Your task to perform on an android device: delete the emails in spam in the gmail app Image 0: 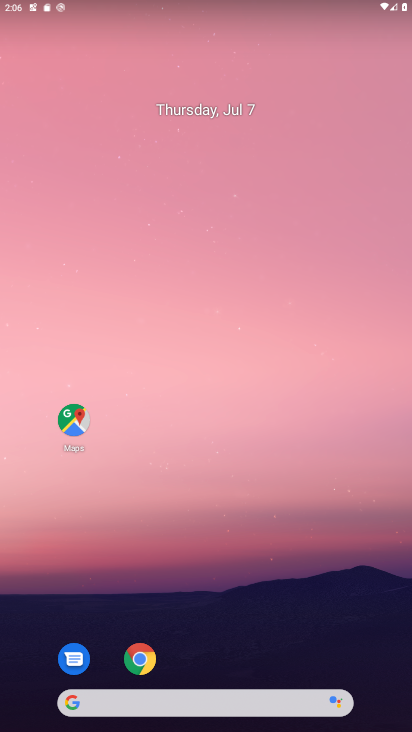
Step 0: drag from (240, 565) to (308, 195)
Your task to perform on an android device: delete the emails in spam in the gmail app Image 1: 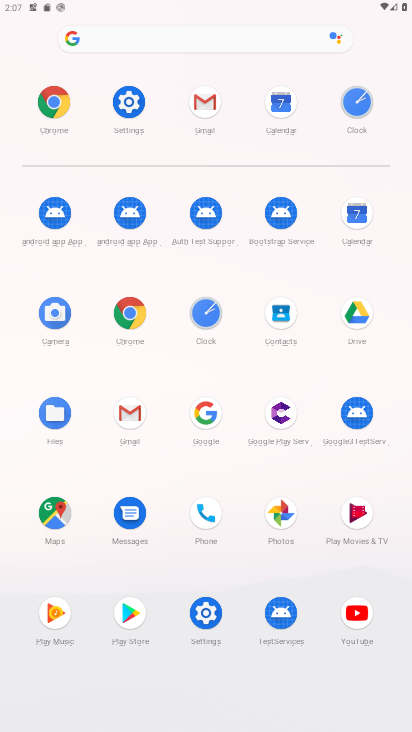
Step 1: click (131, 417)
Your task to perform on an android device: delete the emails in spam in the gmail app Image 2: 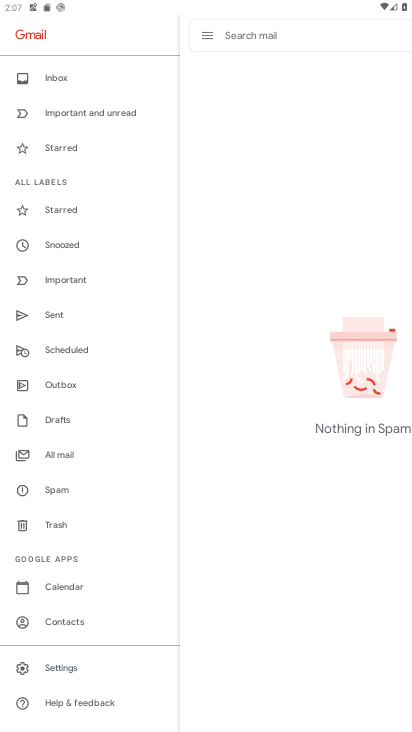
Step 2: drag from (77, 663) to (136, 213)
Your task to perform on an android device: delete the emails in spam in the gmail app Image 3: 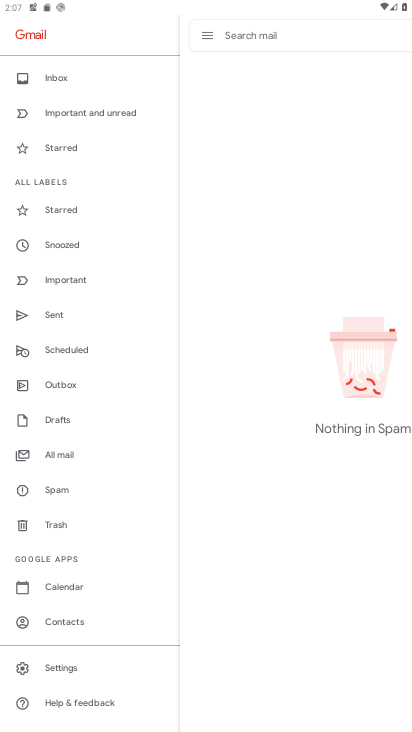
Step 3: click (71, 485)
Your task to perform on an android device: delete the emails in spam in the gmail app Image 4: 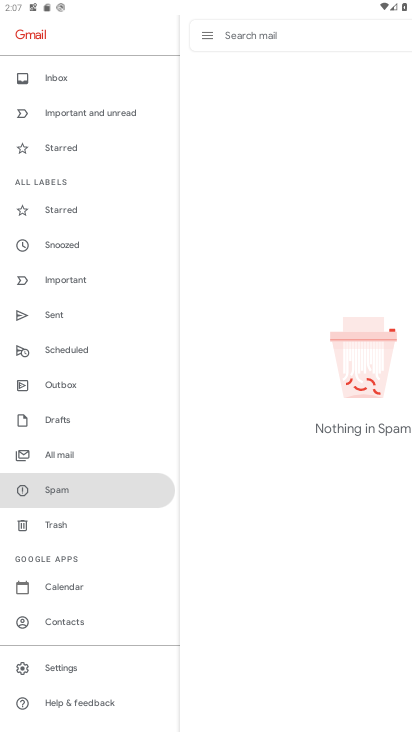
Step 4: click (63, 490)
Your task to perform on an android device: delete the emails in spam in the gmail app Image 5: 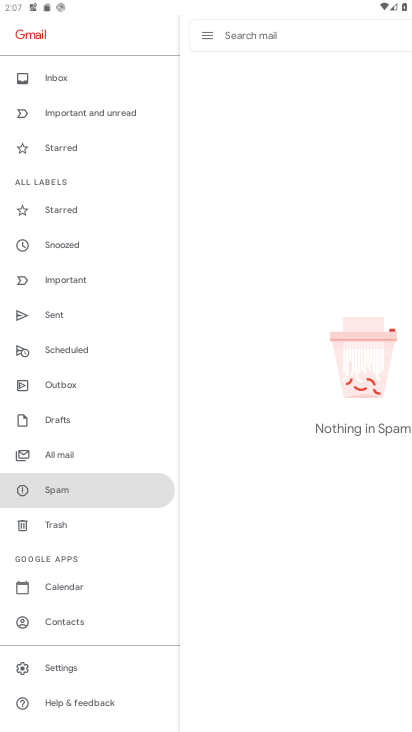
Step 5: task complete